Your task to perform on an android device: Go to display settings Image 0: 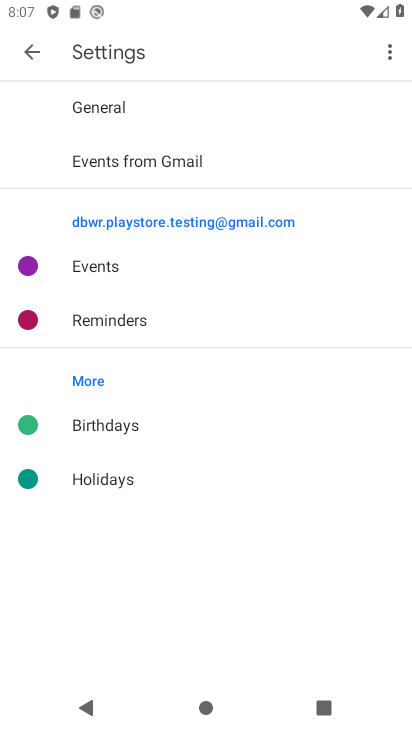
Step 0: press home button
Your task to perform on an android device: Go to display settings Image 1: 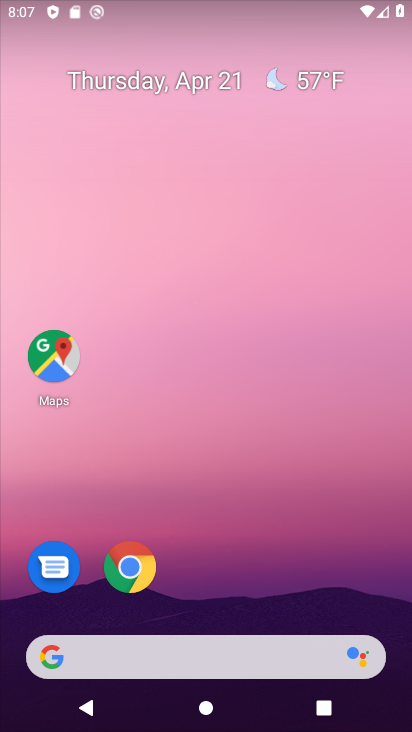
Step 1: drag from (219, 488) to (219, 76)
Your task to perform on an android device: Go to display settings Image 2: 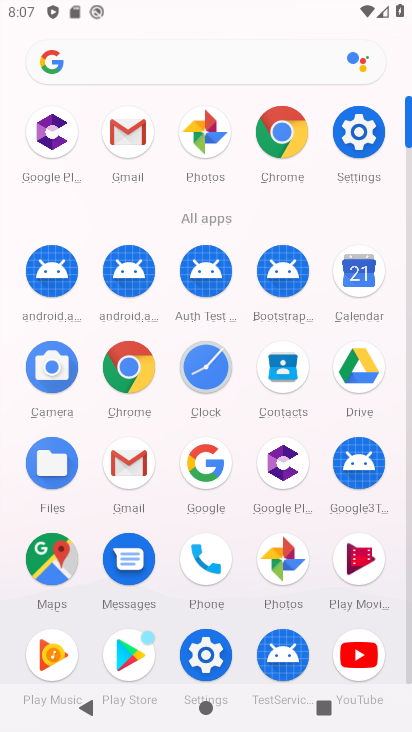
Step 2: click (349, 141)
Your task to perform on an android device: Go to display settings Image 3: 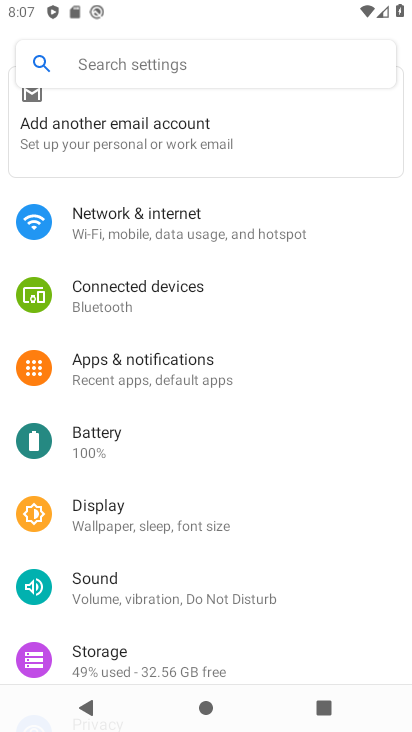
Step 3: click (121, 505)
Your task to perform on an android device: Go to display settings Image 4: 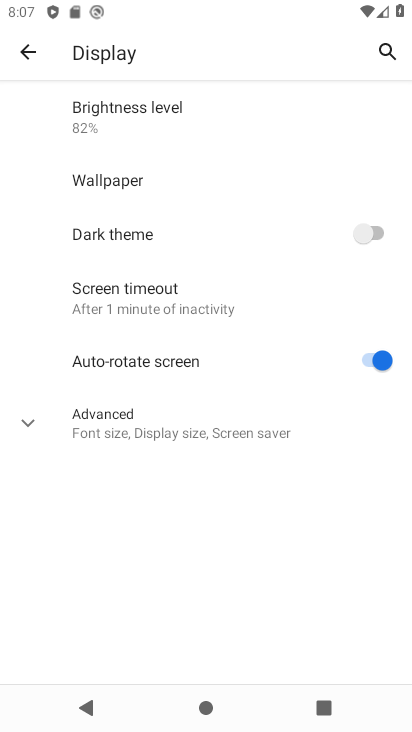
Step 4: task complete